Your task to perform on an android device: turn off improve location accuracy Image 0: 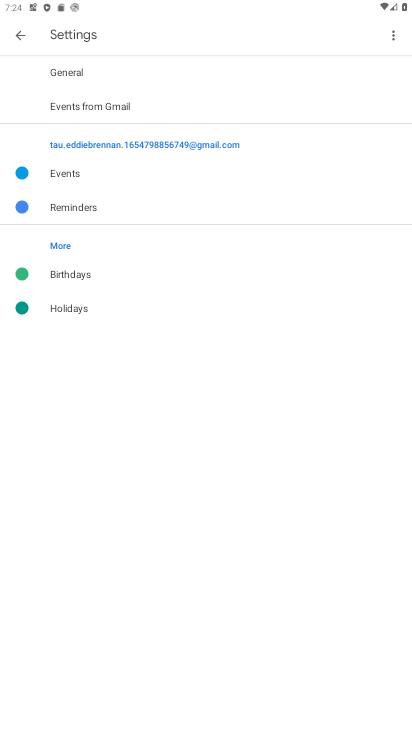
Step 0: press home button
Your task to perform on an android device: turn off improve location accuracy Image 1: 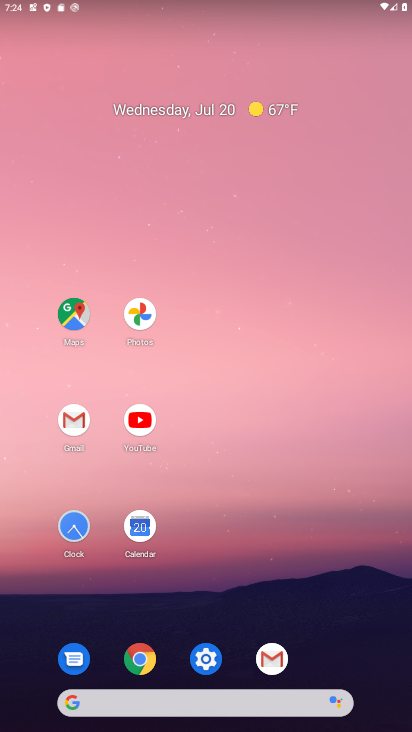
Step 1: click (209, 662)
Your task to perform on an android device: turn off improve location accuracy Image 2: 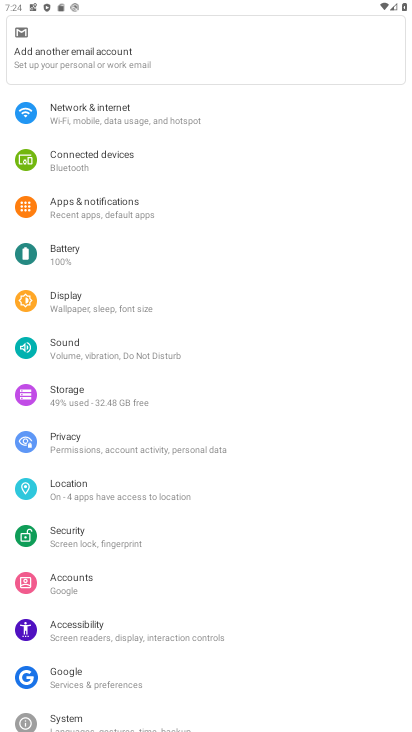
Step 2: click (74, 478)
Your task to perform on an android device: turn off improve location accuracy Image 3: 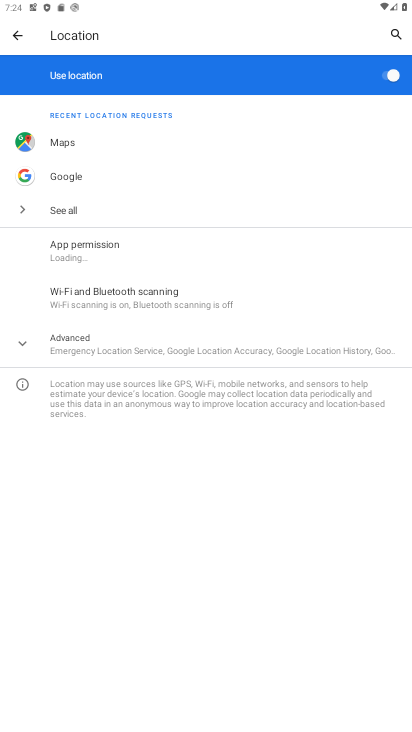
Step 3: click (23, 337)
Your task to perform on an android device: turn off improve location accuracy Image 4: 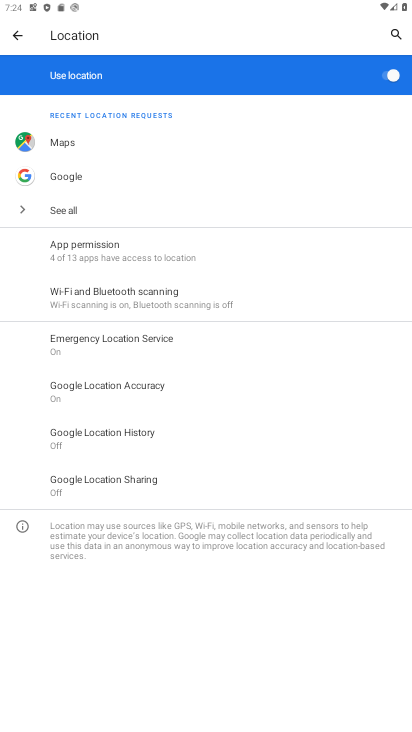
Step 4: click (65, 388)
Your task to perform on an android device: turn off improve location accuracy Image 5: 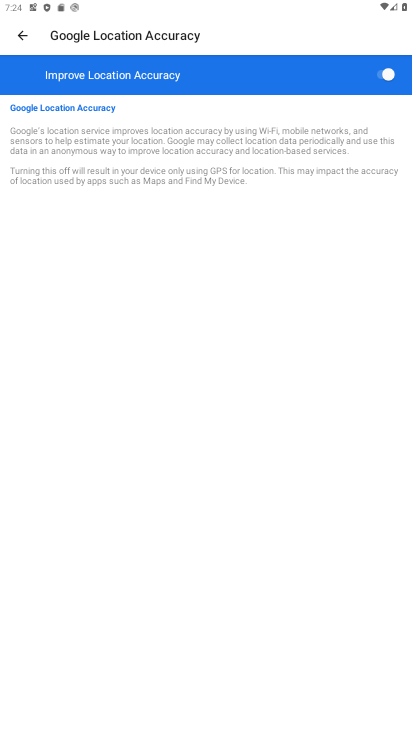
Step 5: click (387, 69)
Your task to perform on an android device: turn off improve location accuracy Image 6: 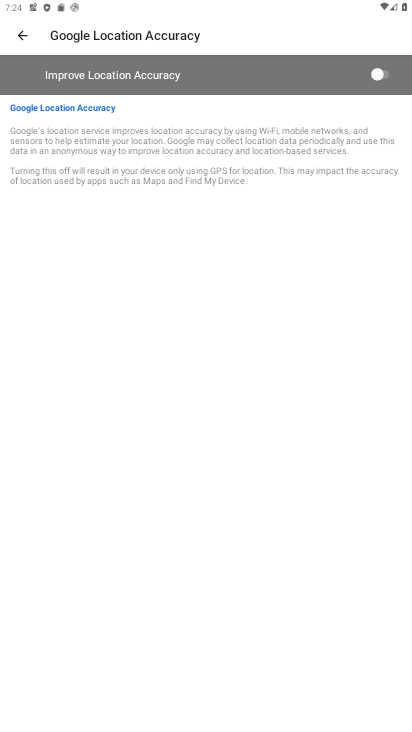
Step 6: task complete